Your task to perform on an android device: uninstall "Fetch Rewards" Image 0: 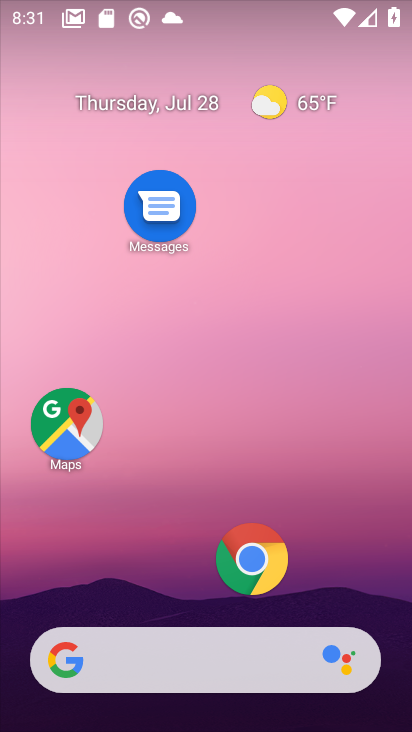
Step 0: drag from (158, 583) to (199, 7)
Your task to perform on an android device: uninstall "Fetch Rewards" Image 1: 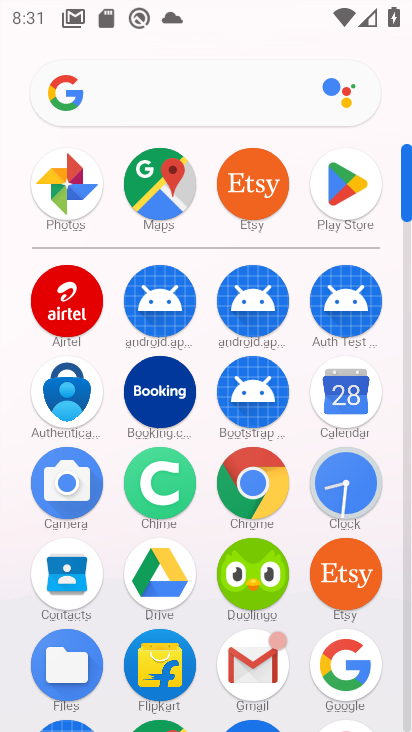
Step 1: click (339, 202)
Your task to perform on an android device: uninstall "Fetch Rewards" Image 2: 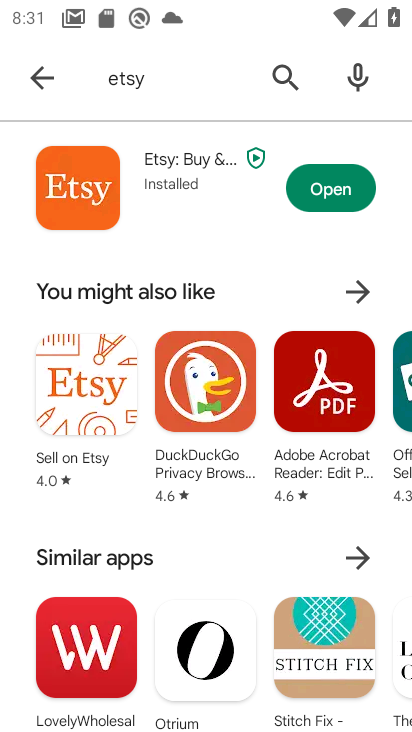
Step 2: click (164, 80)
Your task to perform on an android device: uninstall "Fetch Rewards" Image 3: 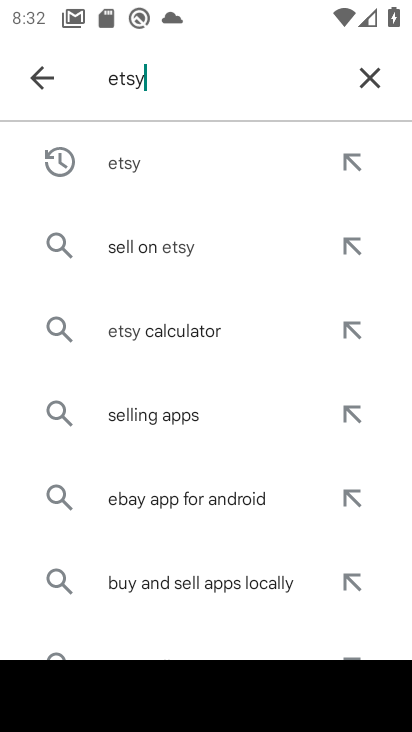
Step 3: click (367, 74)
Your task to perform on an android device: uninstall "Fetch Rewards" Image 4: 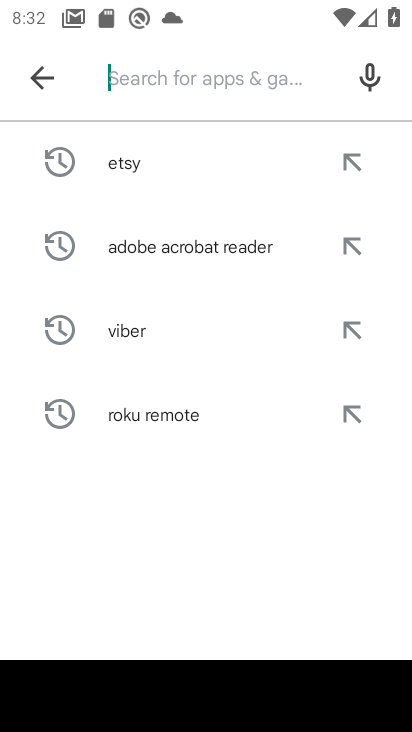
Step 4: type "fetch Rewards"
Your task to perform on an android device: uninstall "Fetch Rewards" Image 5: 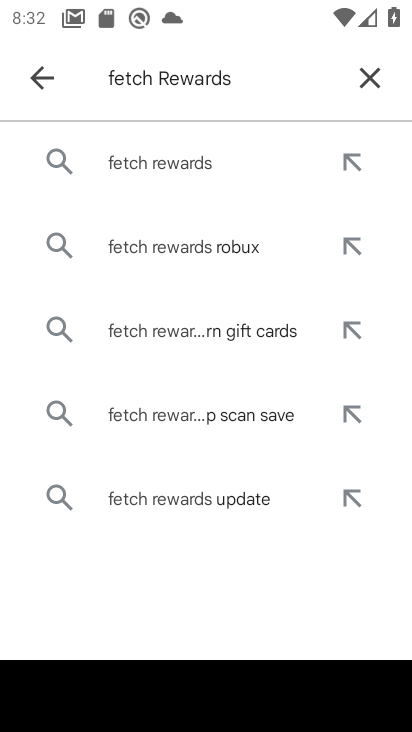
Step 5: click (199, 164)
Your task to perform on an android device: uninstall "Fetch Rewards" Image 6: 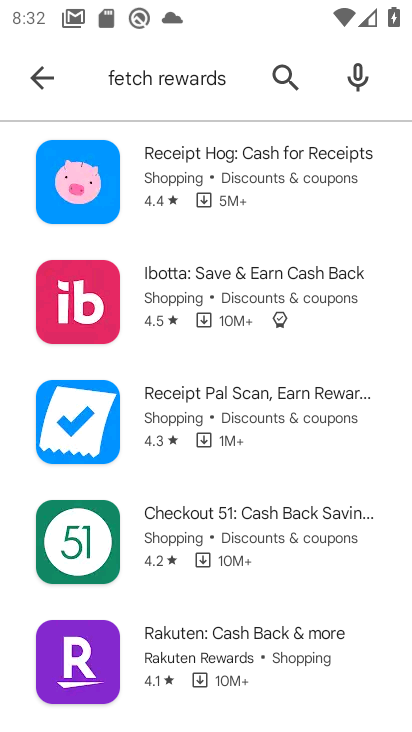
Step 6: task complete